Your task to perform on an android device: star an email in the gmail app Image 0: 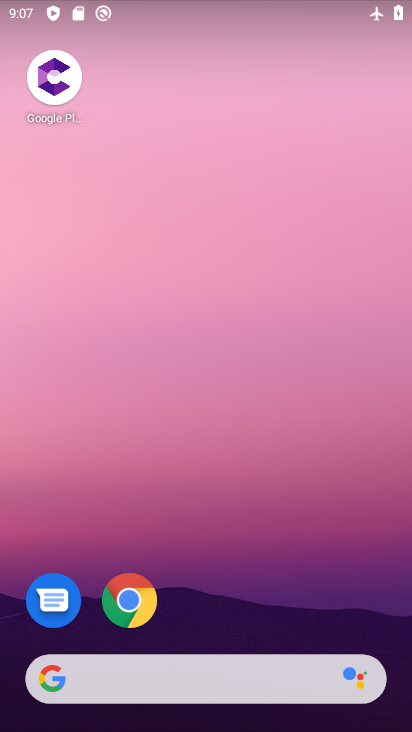
Step 0: drag from (273, 665) to (277, 132)
Your task to perform on an android device: star an email in the gmail app Image 1: 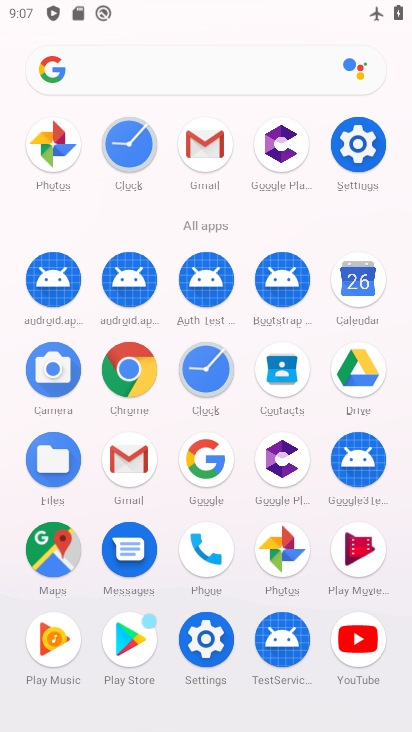
Step 1: click (212, 138)
Your task to perform on an android device: star an email in the gmail app Image 2: 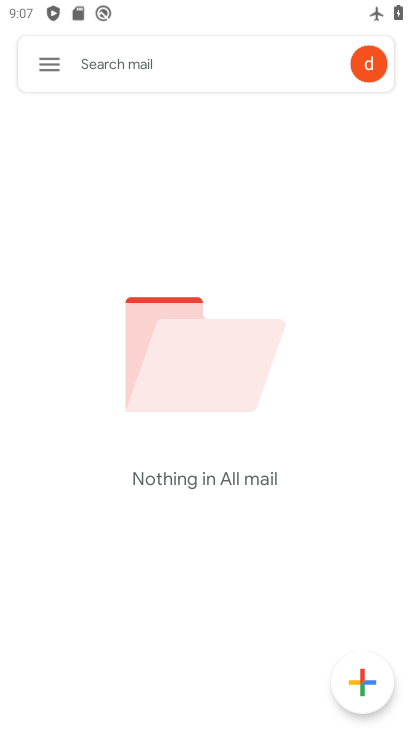
Step 2: click (56, 66)
Your task to perform on an android device: star an email in the gmail app Image 3: 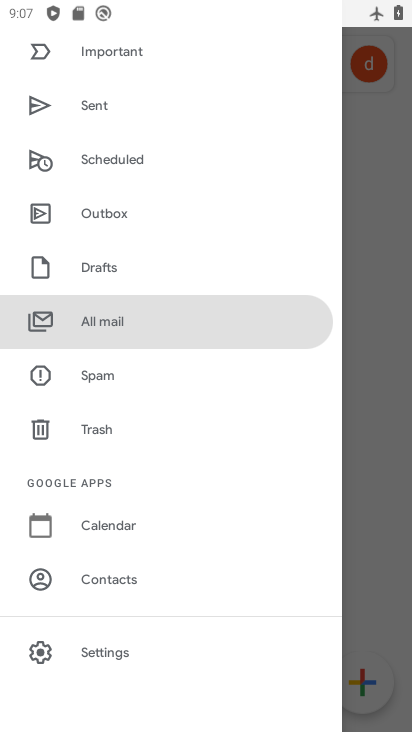
Step 3: click (100, 315)
Your task to perform on an android device: star an email in the gmail app Image 4: 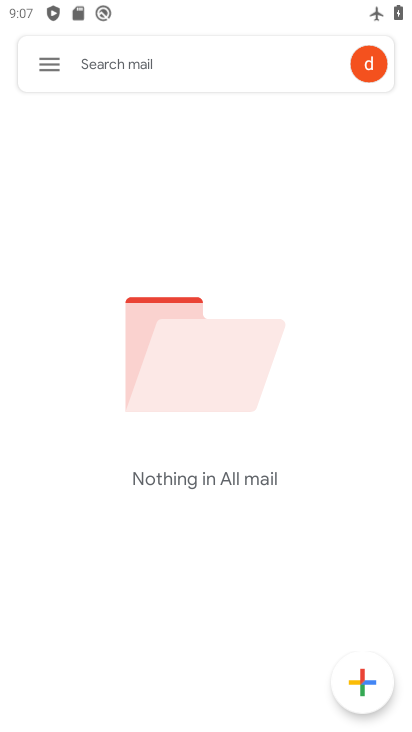
Step 4: task complete